Your task to perform on an android device: check storage Image 0: 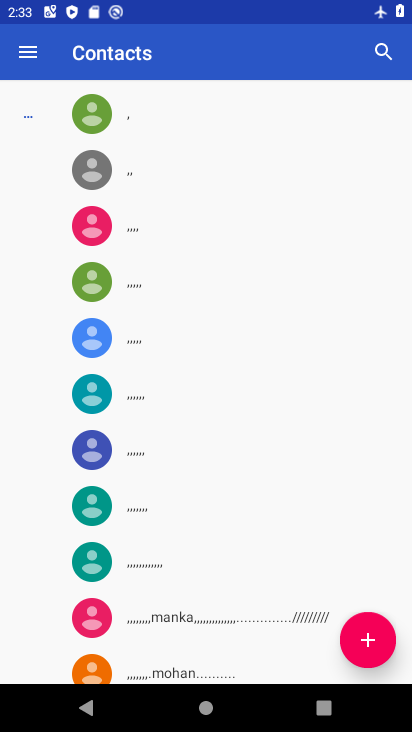
Step 0: press home button
Your task to perform on an android device: check storage Image 1: 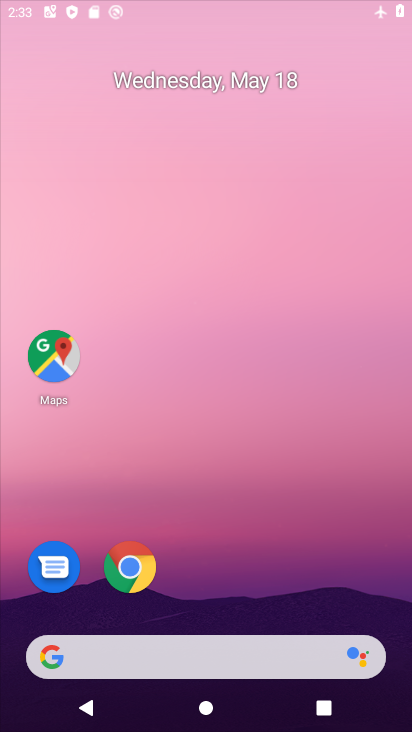
Step 1: drag from (244, 509) to (230, 288)
Your task to perform on an android device: check storage Image 2: 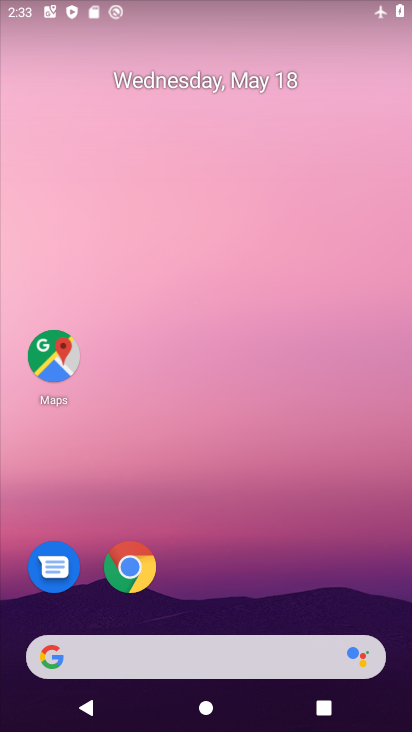
Step 2: drag from (214, 546) to (220, 173)
Your task to perform on an android device: check storage Image 3: 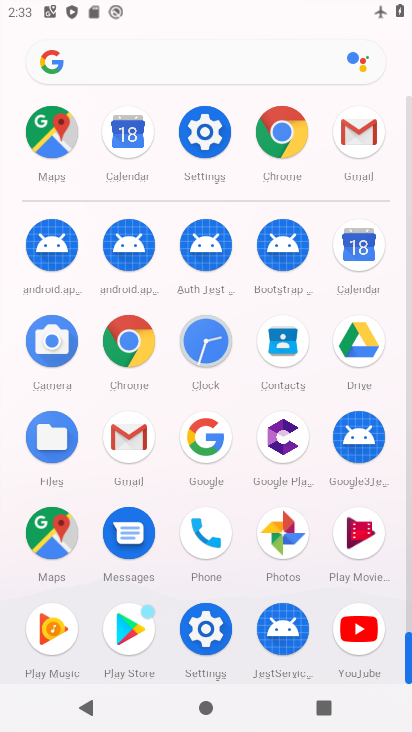
Step 3: click (191, 136)
Your task to perform on an android device: check storage Image 4: 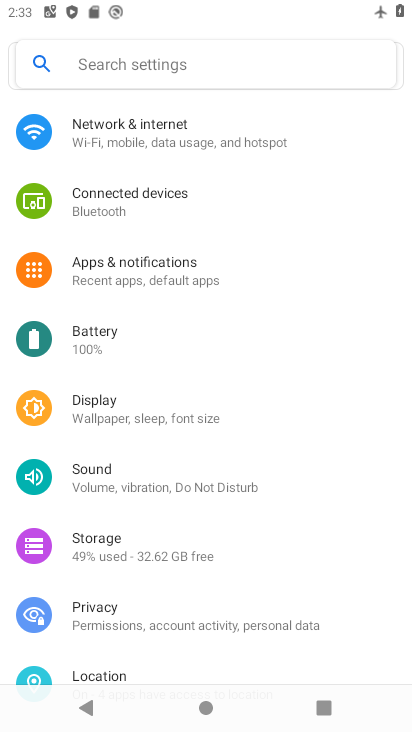
Step 4: click (134, 544)
Your task to perform on an android device: check storage Image 5: 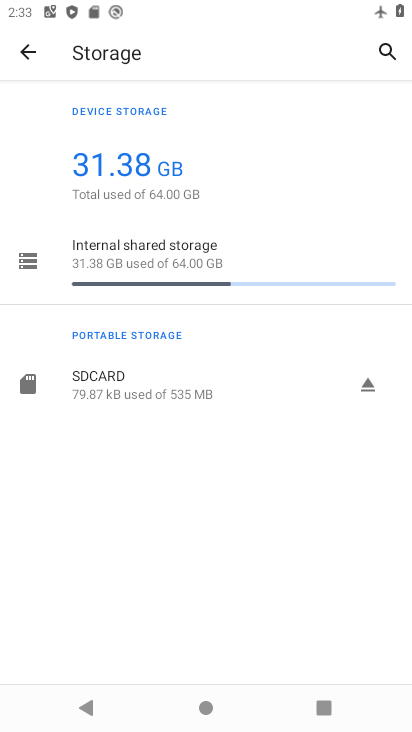
Step 5: task complete